Your task to perform on an android device: Turn on the flashlight Image 0: 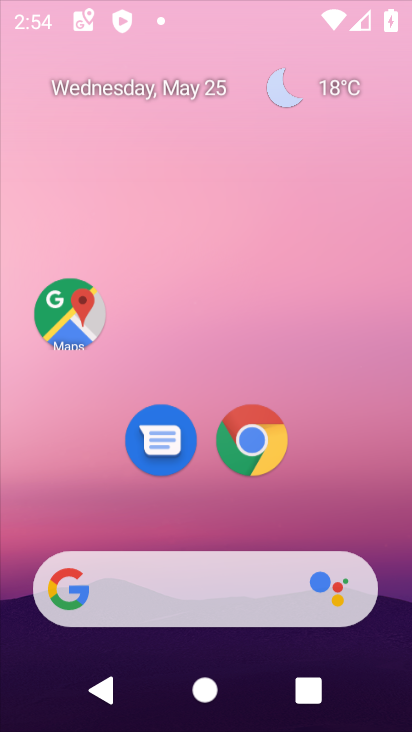
Step 0: drag from (163, 297) to (156, 151)
Your task to perform on an android device: Turn on the flashlight Image 1: 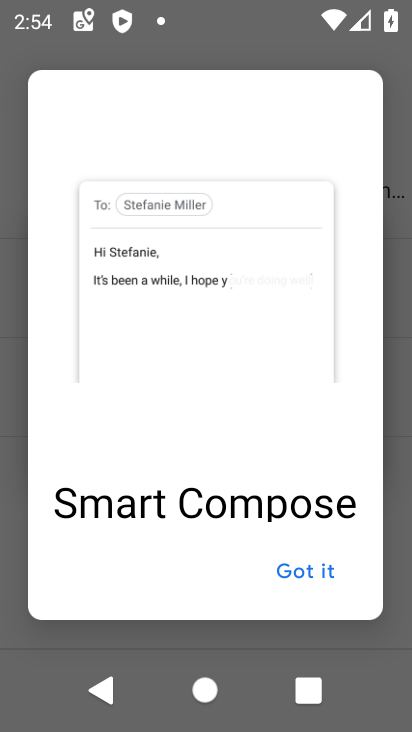
Step 1: task complete